Your task to perform on an android device: Go to Wikipedia Image 0: 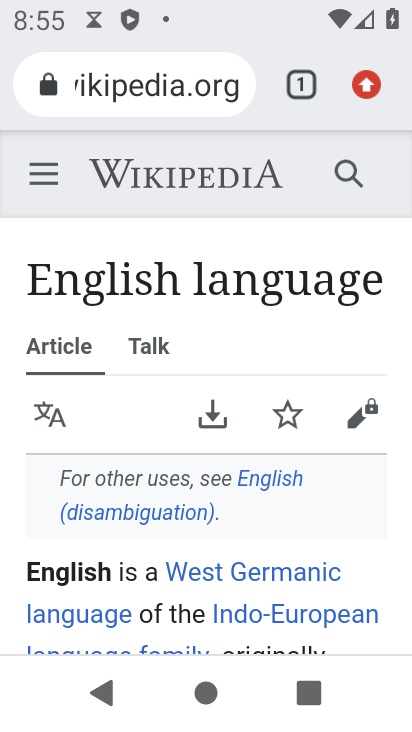
Step 0: drag from (340, 348) to (348, 158)
Your task to perform on an android device: Go to Wikipedia Image 1: 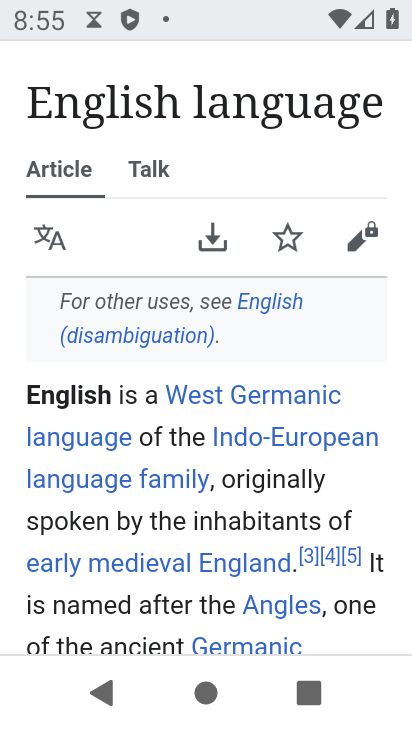
Step 1: task complete